Your task to perform on an android device: toggle translation in the chrome app Image 0: 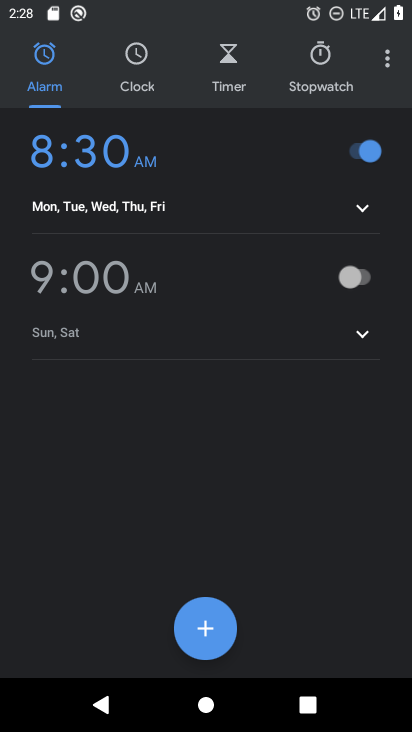
Step 0: press home button
Your task to perform on an android device: toggle translation in the chrome app Image 1: 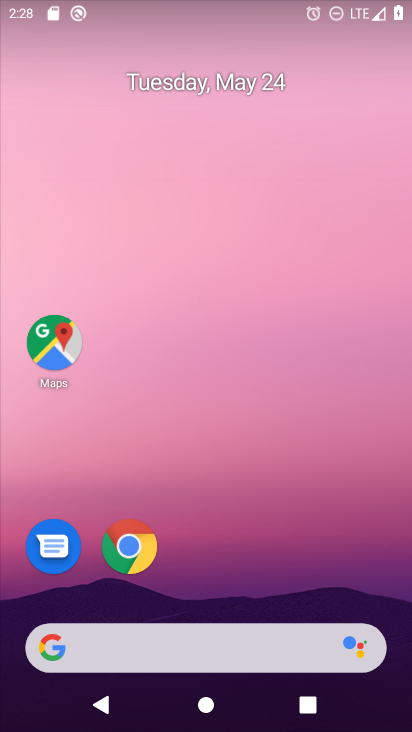
Step 1: drag from (271, 627) to (291, 41)
Your task to perform on an android device: toggle translation in the chrome app Image 2: 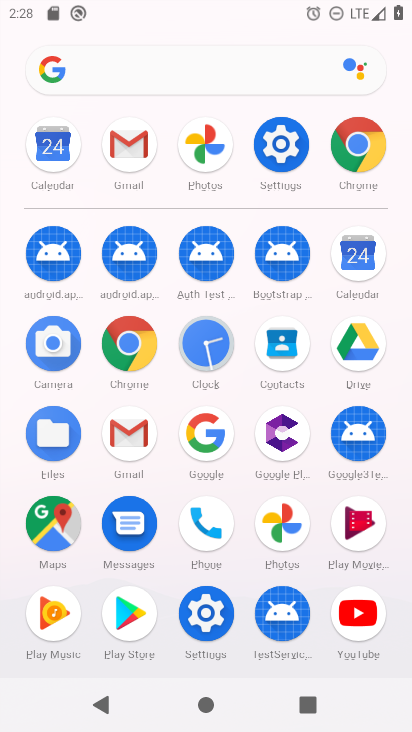
Step 2: click (133, 349)
Your task to perform on an android device: toggle translation in the chrome app Image 3: 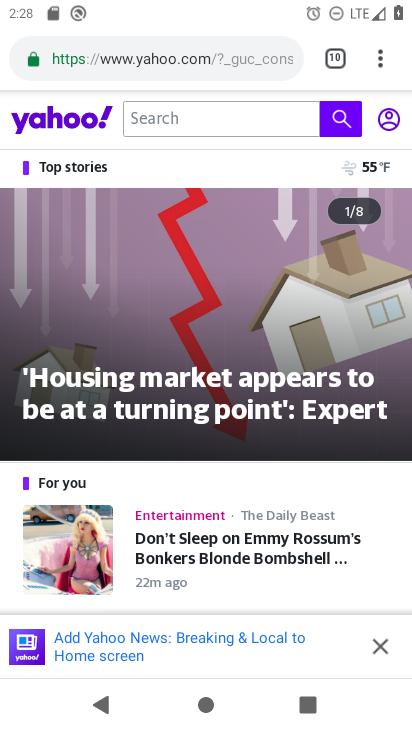
Step 3: drag from (380, 59) to (187, 580)
Your task to perform on an android device: toggle translation in the chrome app Image 4: 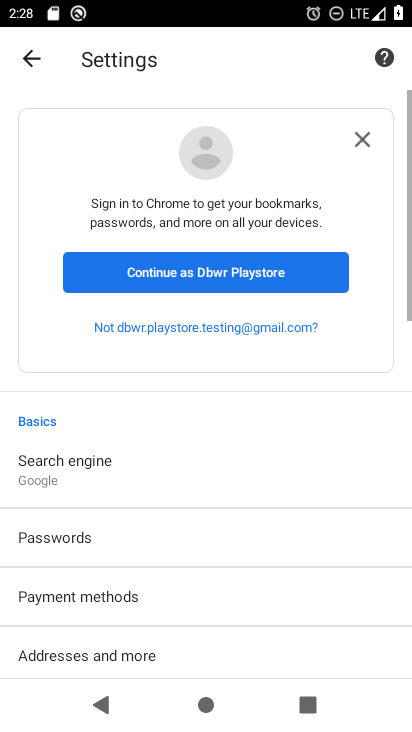
Step 4: drag from (151, 590) to (201, 69)
Your task to perform on an android device: toggle translation in the chrome app Image 5: 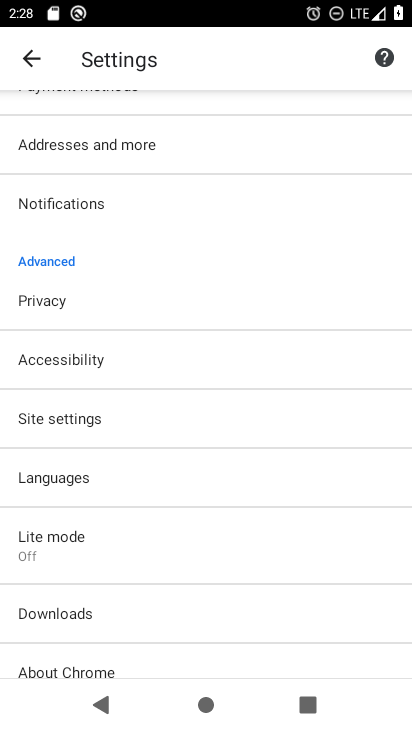
Step 5: click (65, 468)
Your task to perform on an android device: toggle translation in the chrome app Image 6: 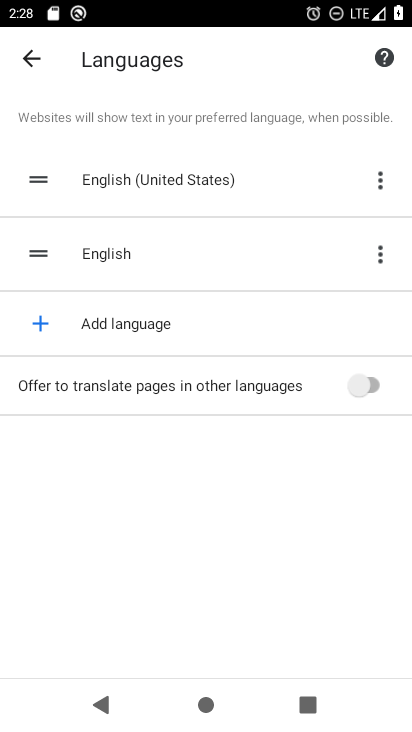
Step 6: click (368, 382)
Your task to perform on an android device: toggle translation in the chrome app Image 7: 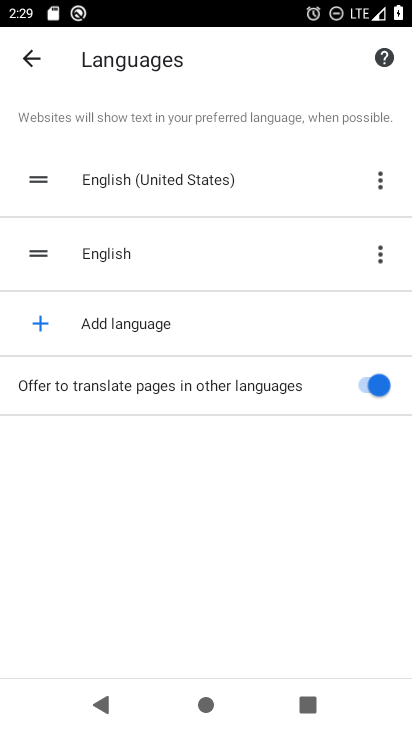
Step 7: task complete